Your task to perform on an android device: Open internet settings Image 0: 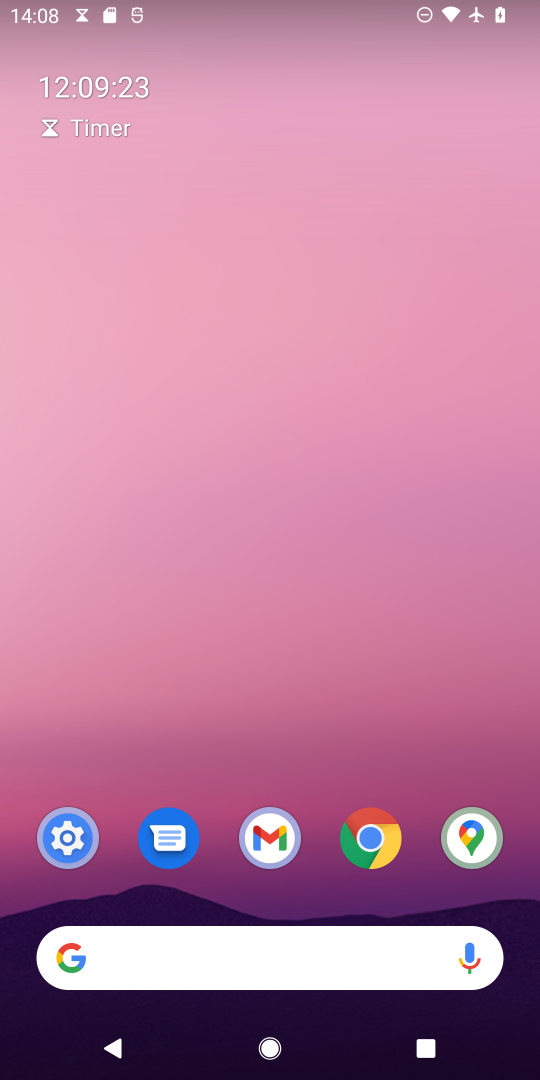
Step 0: press home button
Your task to perform on an android device: Open internet settings Image 1: 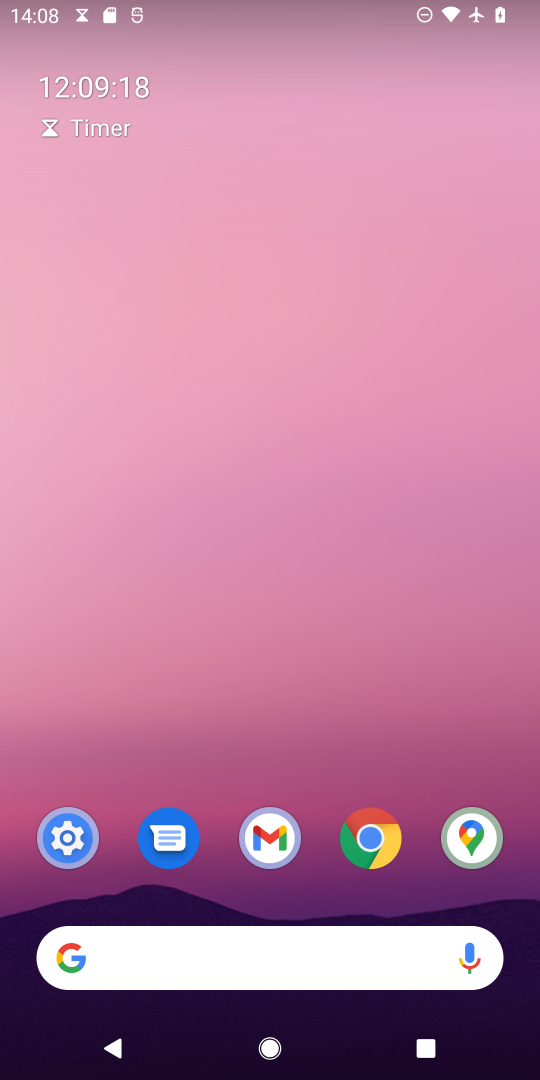
Step 1: drag from (336, 833) to (278, 39)
Your task to perform on an android device: Open internet settings Image 2: 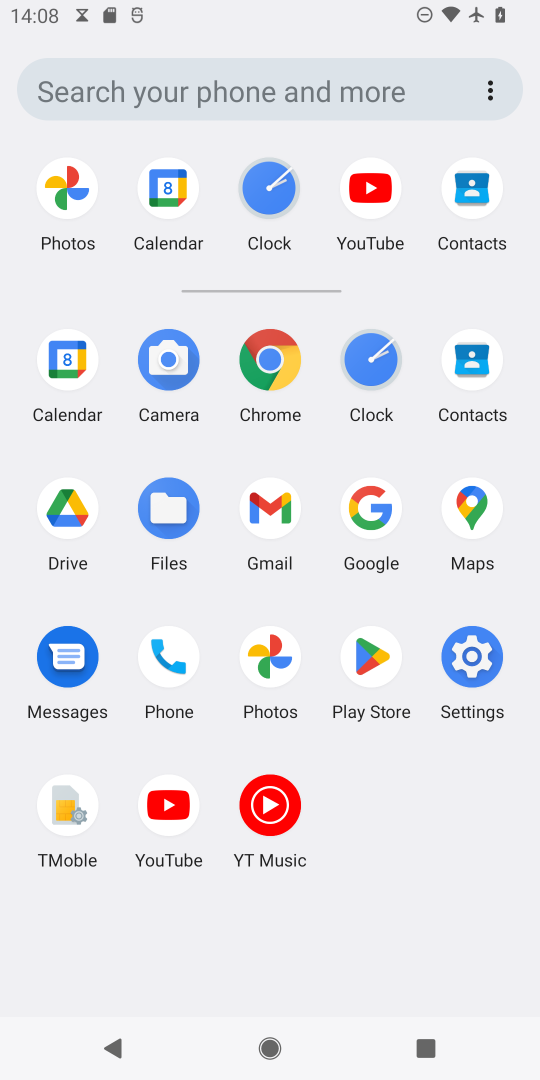
Step 2: click (478, 656)
Your task to perform on an android device: Open internet settings Image 3: 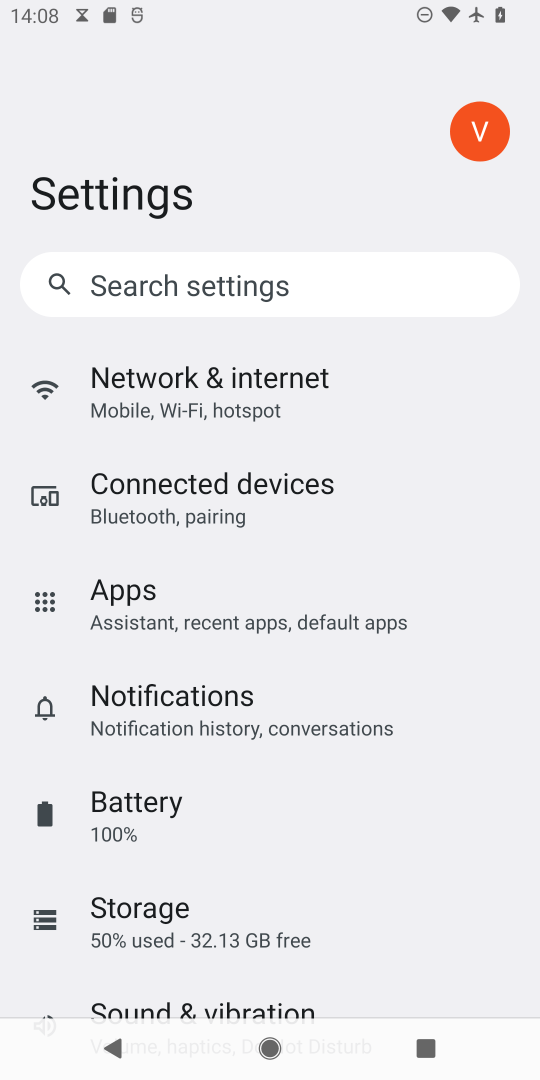
Step 3: click (187, 391)
Your task to perform on an android device: Open internet settings Image 4: 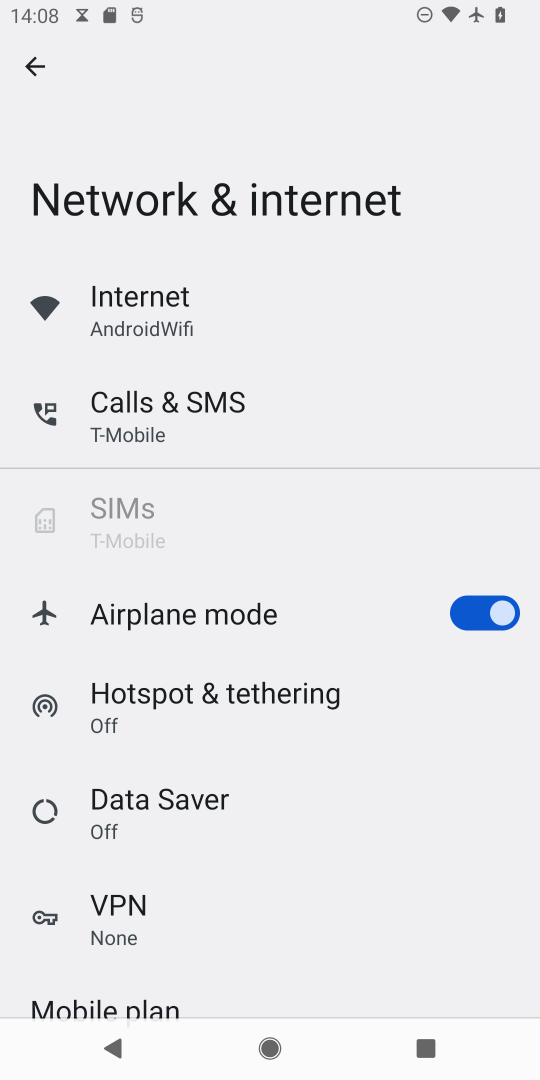
Step 4: task complete